Your task to perform on an android device: Open notification settings Image 0: 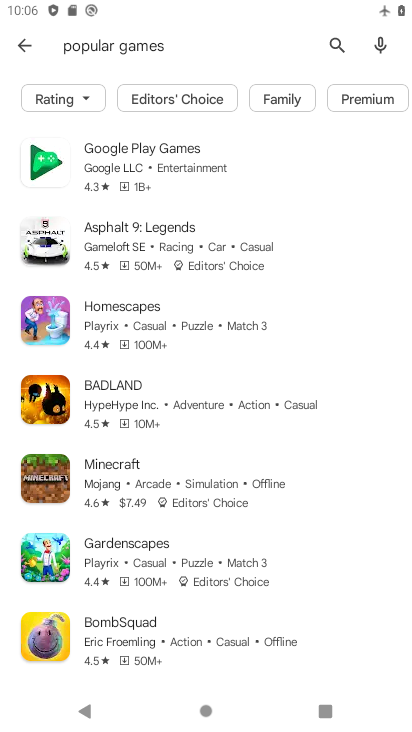
Step 0: press home button
Your task to perform on an android device: Open notification settings Image 1: 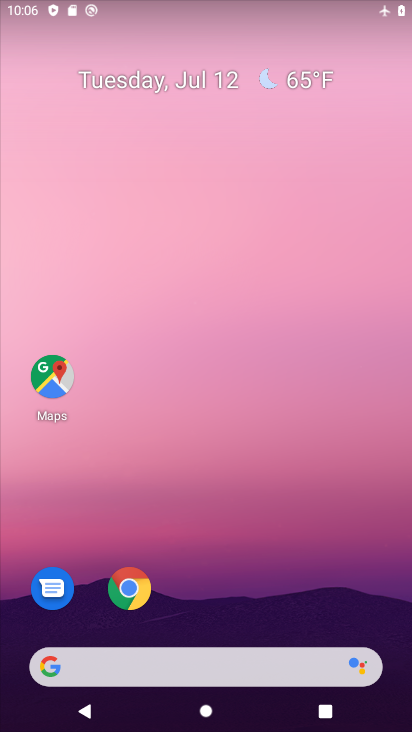
Step 1: drag from (81, 587) to (262, 124)
Your task to perform on an android device: Open notification settings Image 2: 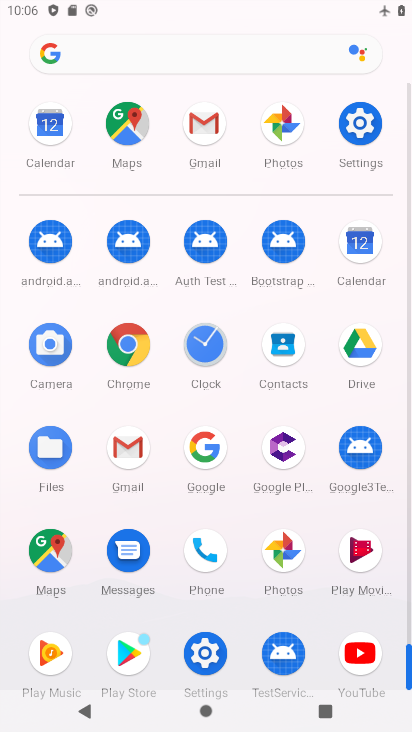
Step 2: click (191, 665)
Your task to perform on an android device: Open notification settings Image 3: 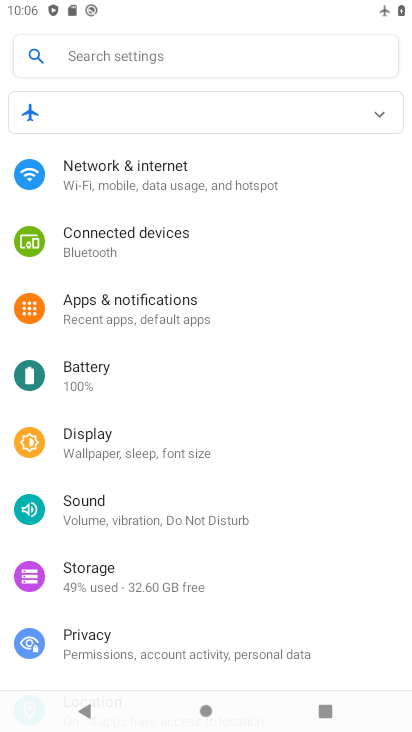
Step 3: click (142, 304)
Your task to perform on an android device: Open notification settings Image 4: 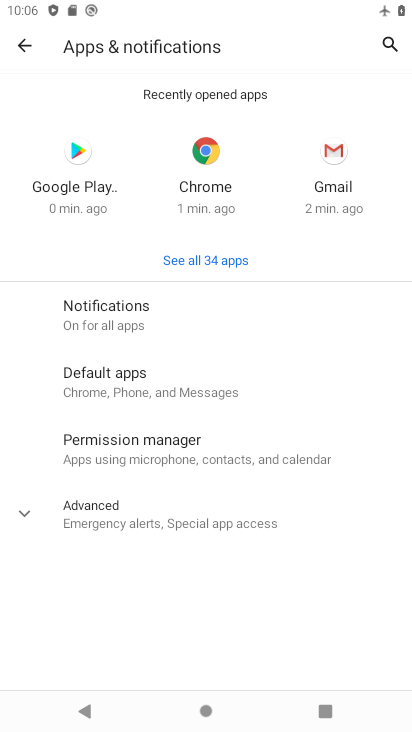
Step 4: click (134, 306)
Your task to perform on an android device: Open notification settings Image 5: 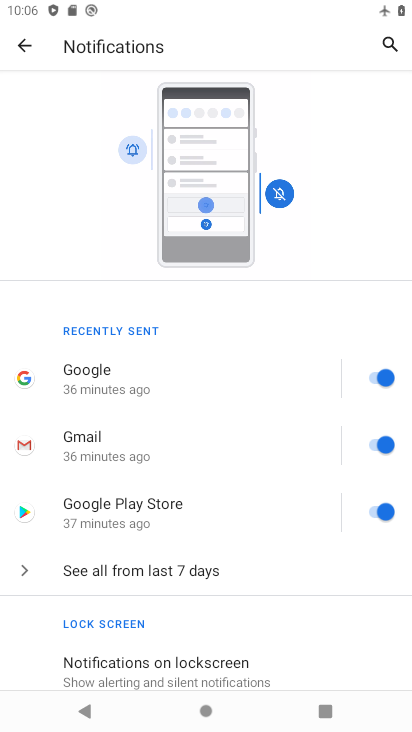
Step 5: task complete